Your task to perform on an android device: delete browsing data in the chrome app Image 0: 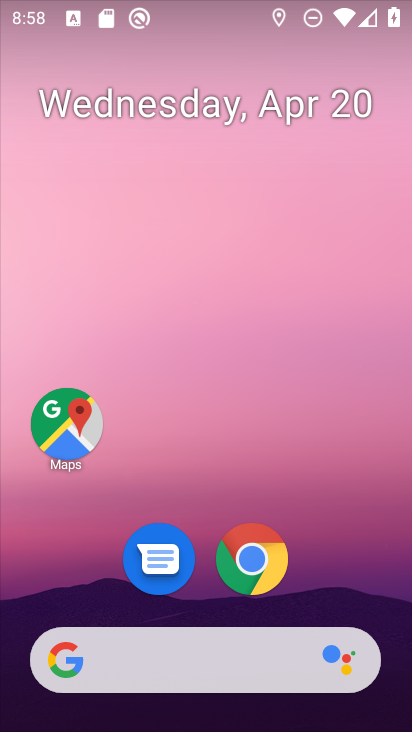
Step 0: click (247, 566)
Your task to perform on an android device: delete browsing data in the chrome app Image 1: 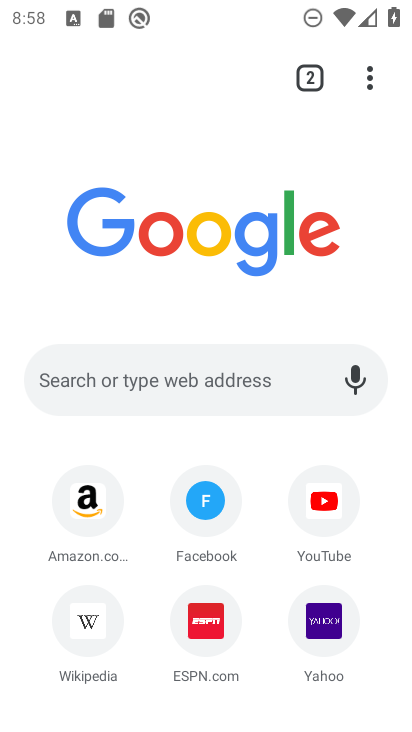
Step 1: click (369, 82)
Your task to perform on an android device: delete browsing data in the chrome app Image 2: 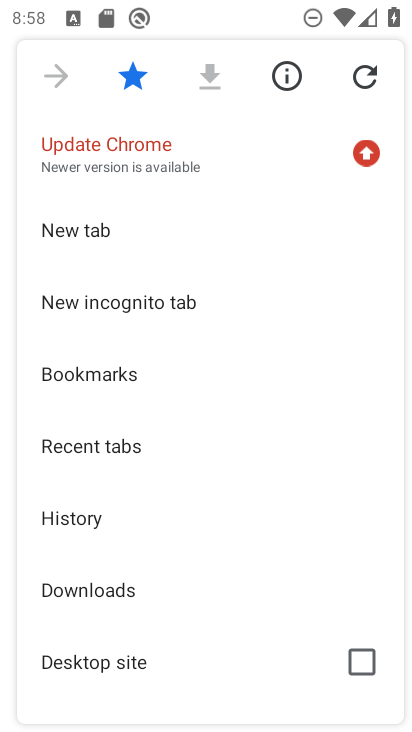
Step 2: click (87, 511)
Your task to perform on an android device: delete browsing data in the chrome app Image 3: 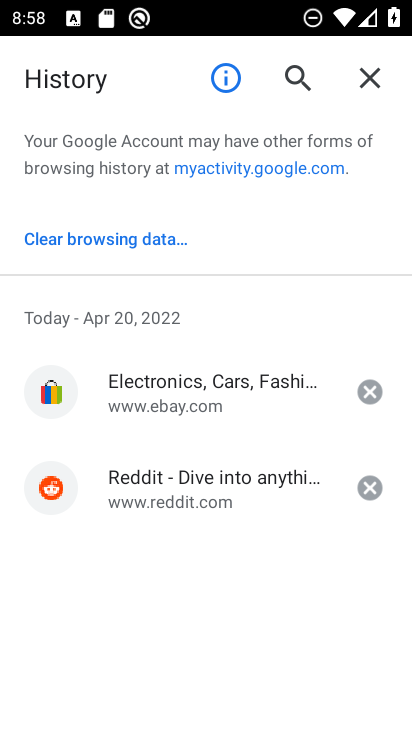
Step 3: click (81, 235)
Your task to perform on an android device: delete browsing data in the chrome app Image 4: 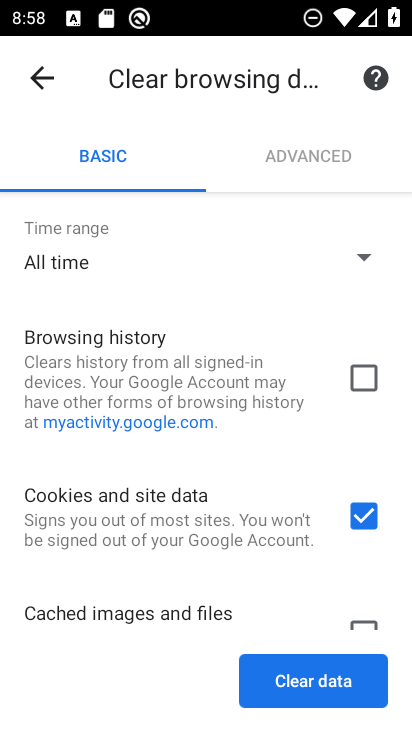
Step 4: click (368, 375)
Your task to perform on an android device: delete browsing data in the chrome app Image 5: 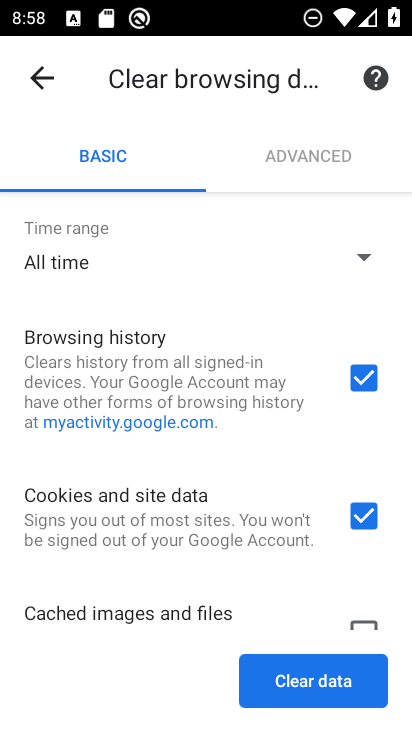
Step 5: click (364, 519)
Your task to perform on an android device: delete browsing data in the chrome app Image 6: 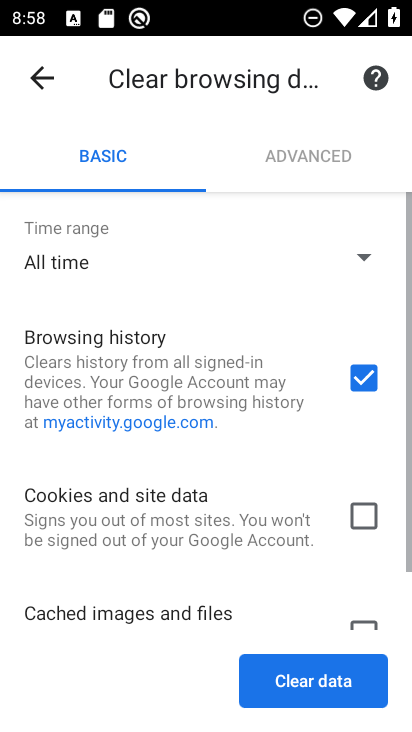
Step 6: drag from (266, 578) to (250, 391)
Your task to perform on an android device: delete browsing data in the chrome app Image 7: 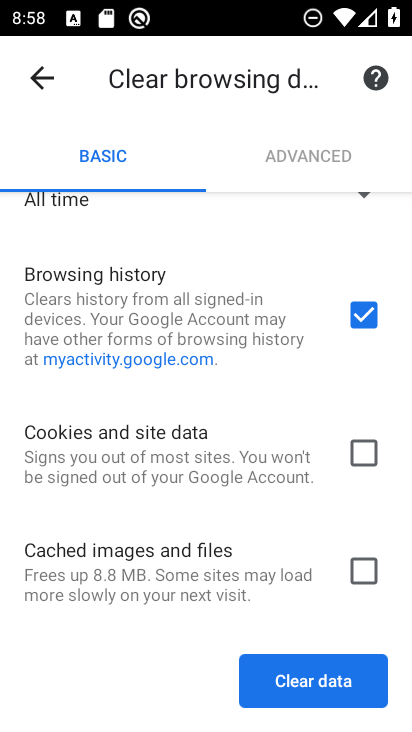
Step 7: click (292, 689)
Your task to perform on an android device: delete browsing data in the chrome app Image 8: 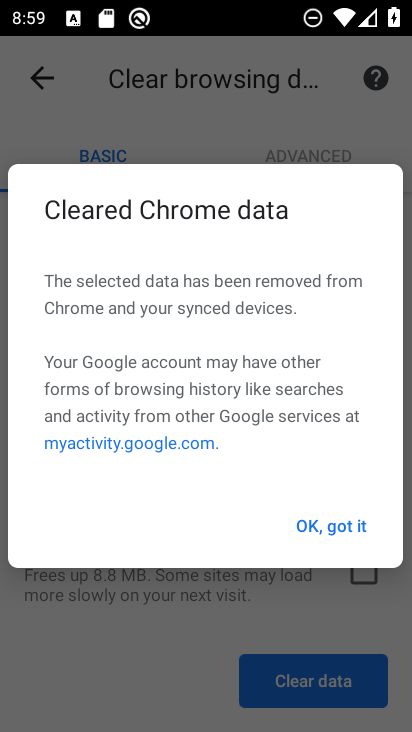
Step 8: click (327, 523)
Your task to perform on an android device: delete browsing data in the chrome app Image 9: 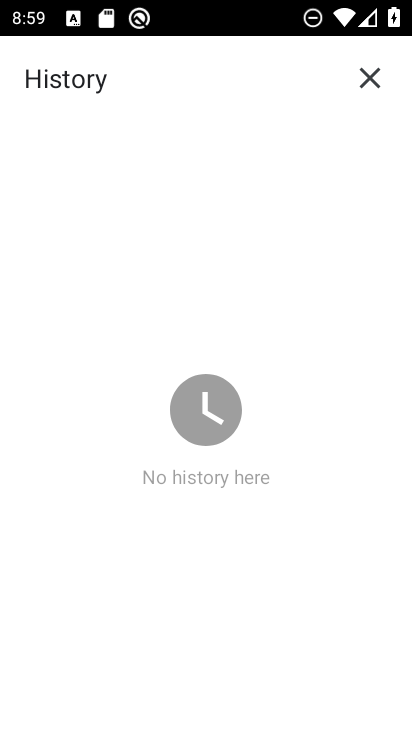
Step 9: task complete